Your task to perform on an android device: turn on bluetooth scan Image 0: 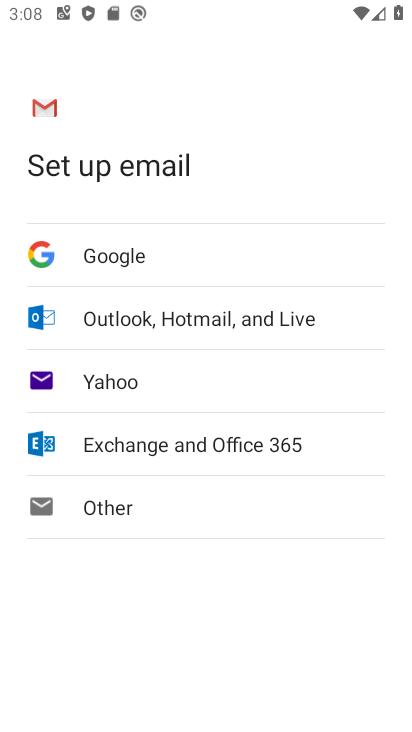
Step 0: press home button
Your task to perform on an android device: turn on bluetooth scan Image 1: 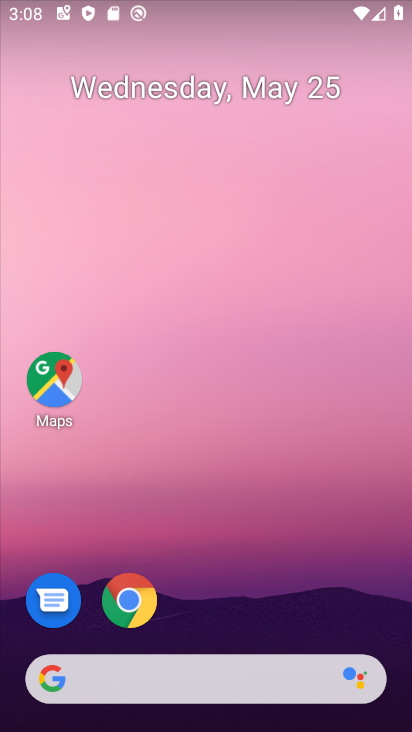
Step 1: drag from (17, 600) to (267, 144)
Your task to perform on an android device: turn on bluetooth scan Image 2: 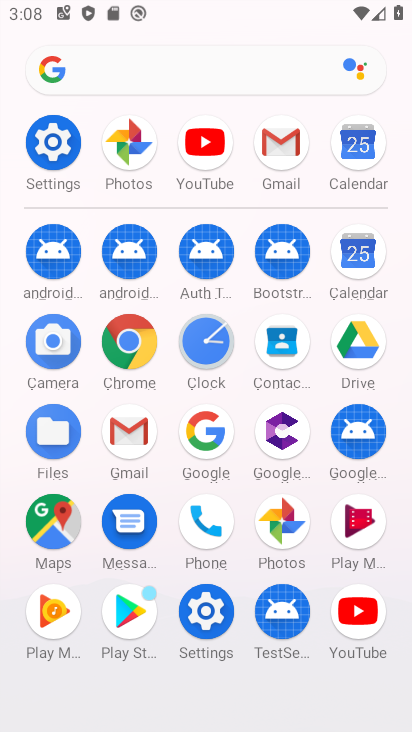
Step 2: click (31, 153)
Your task to perform on an android device: turn on bluetooth scan Image 3: 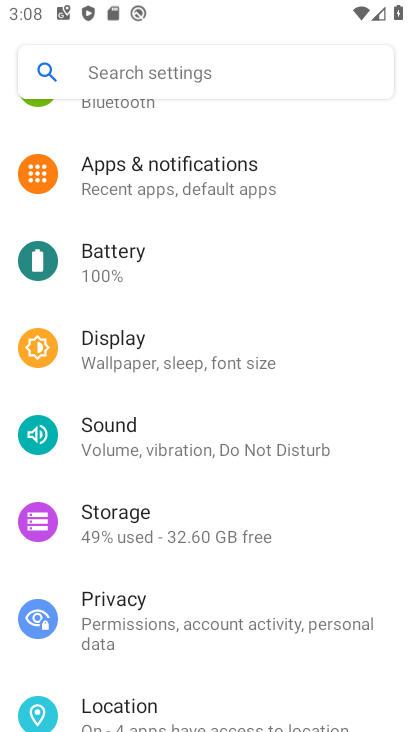
Step 3: drag from (186, 142) to (200, 400)
Your task to perform on an android device: turn on bluetooth scan Image 4: 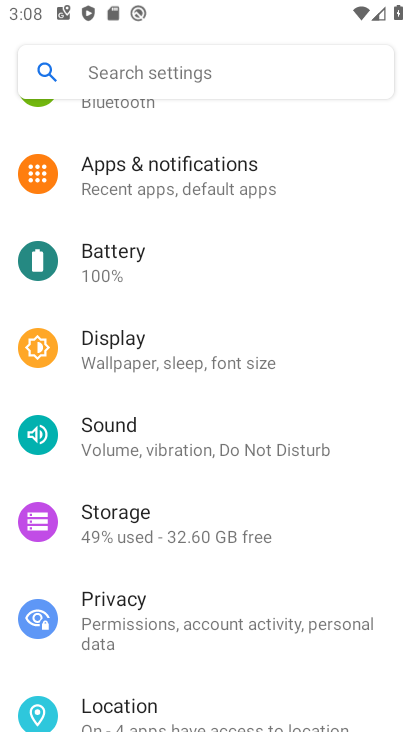
Step 4: drag from (211, 128) to (196, 442)
Your task to perform on an android device: turn on bluetooth scan Image 5: 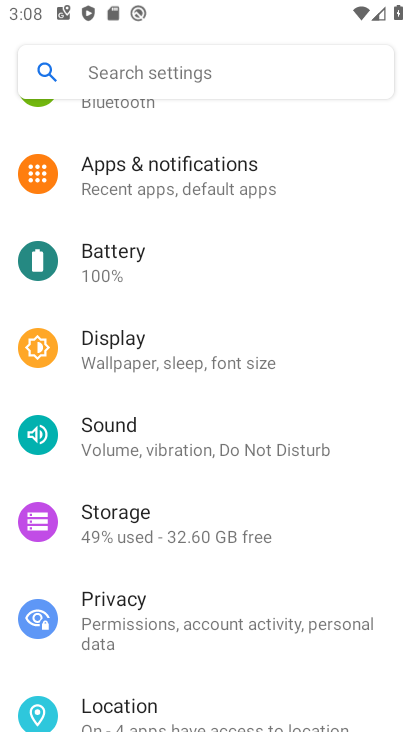
Step 5: drag from (194, 159) to (194, 564)
Your task to perform on an android device: turn on bluetooth scan Image 6: 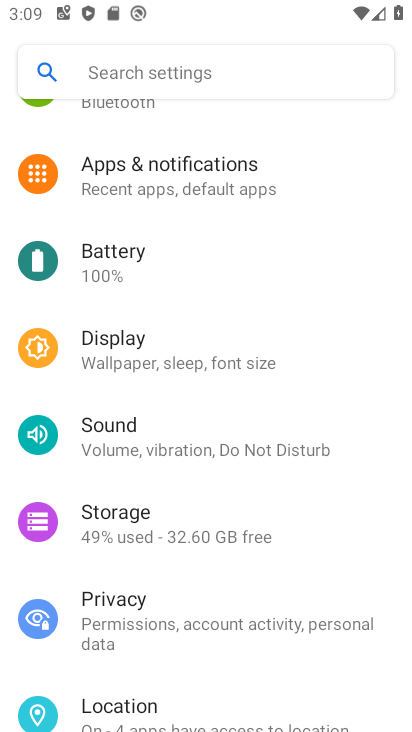
Step 6: drag from (317, 146) to (271, 581)
Your task to perform on an android device: turn on bluetooth scan Image 7: 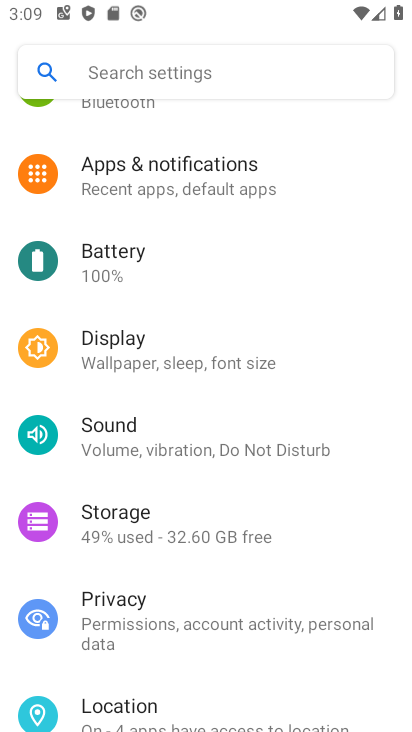
Step 7: drag from (162, 156) to (195, 495)
Your task to perform on an android device: turn on bluetooth scan Image 8: 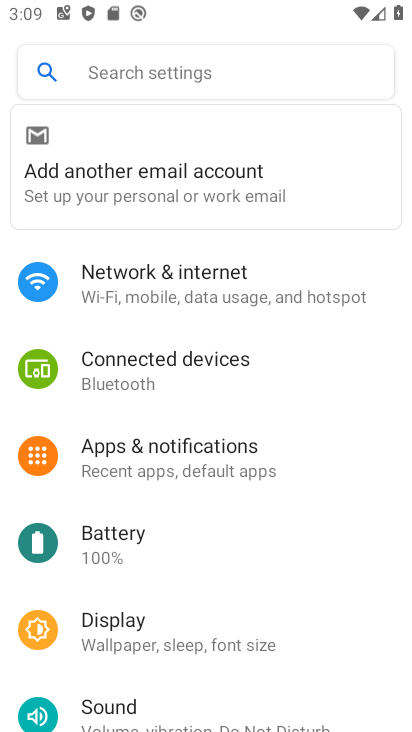
Step 8: drag from (177, 660) to (332, 241)
Your task to perform on an android device: turn on bluetooth scan Image 9: 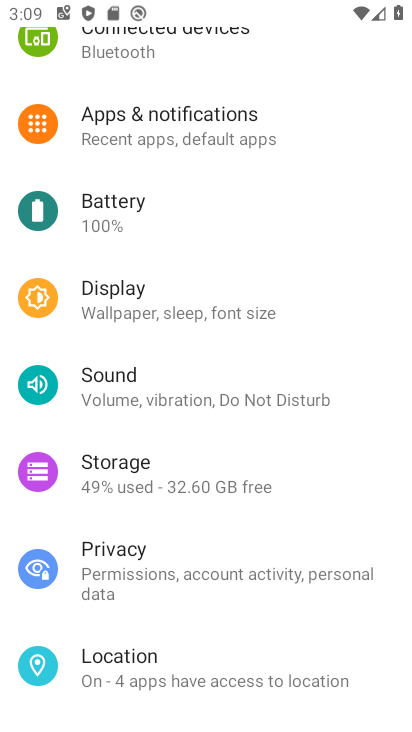
Step 9: click (134, 676)
Your task to perform on an android device: turn on bluetooth scan Image 10: 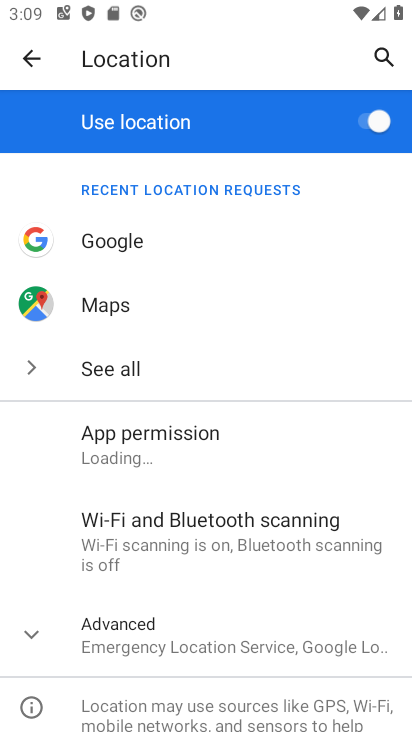
Step 10: click (246, 530)
Your task to perform on an android device: turn on bluetooth scan Image 11: 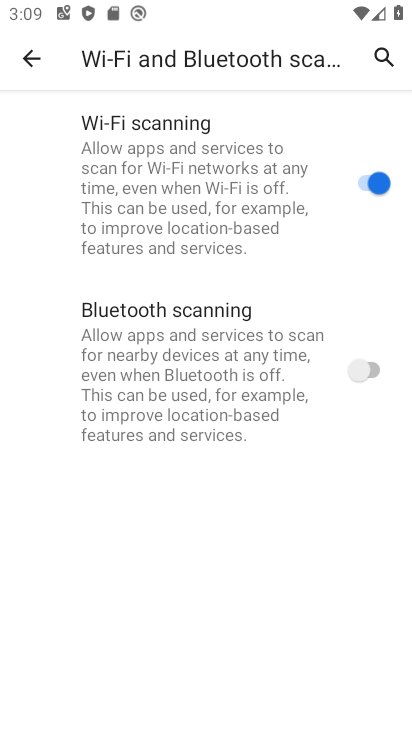
Step 11: click (358, 374)
Your task to perform on an android device: turn on bluetooth scan Image 12: 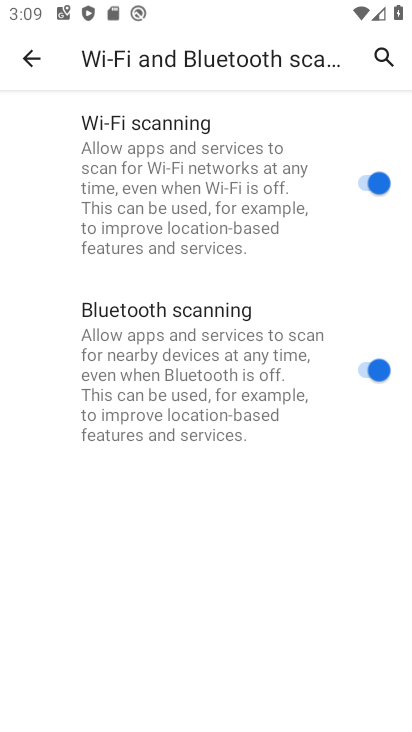
Step 12: task complete